Your task to perform on an android device: read, delete, or share a saved page in the chrome app Image 0: 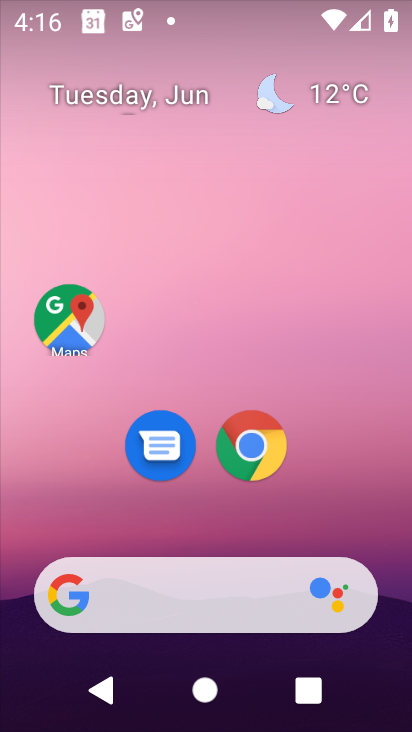
Step 0: drag from (379, 504) to (190, 0)
Your task to perform on an android device: read, delete, or share a saved page in the chrome app Image 1: 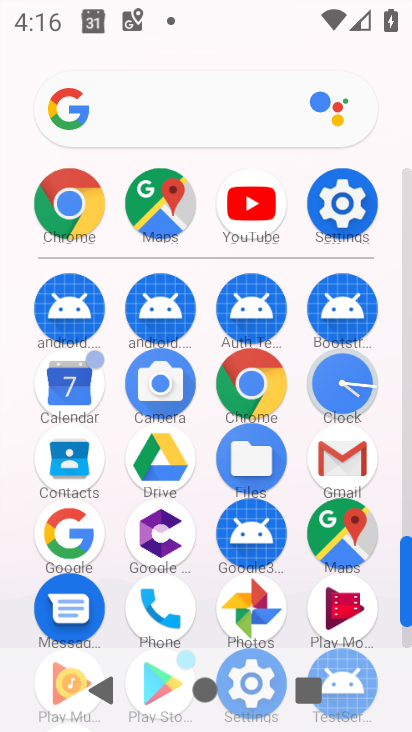
Step 1: click (58, 212)
Your task to perform on an android device: read, delete, or share a saved page in the chrome app Image 2: 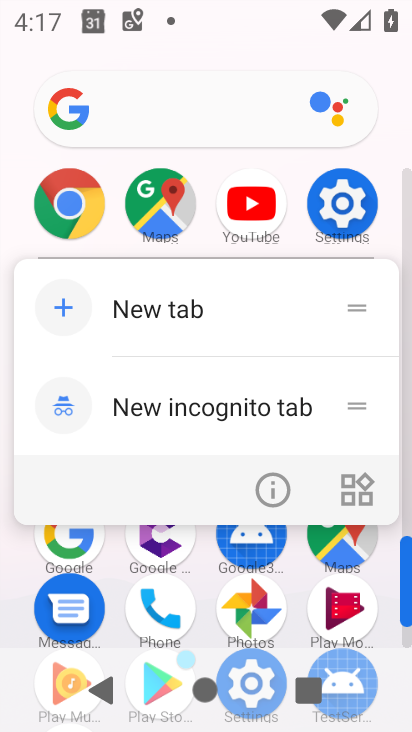
Step 2: click (58, 211)
Your task to perform on an android device: read, delete, or share a saved page in the chrome app Image 3: 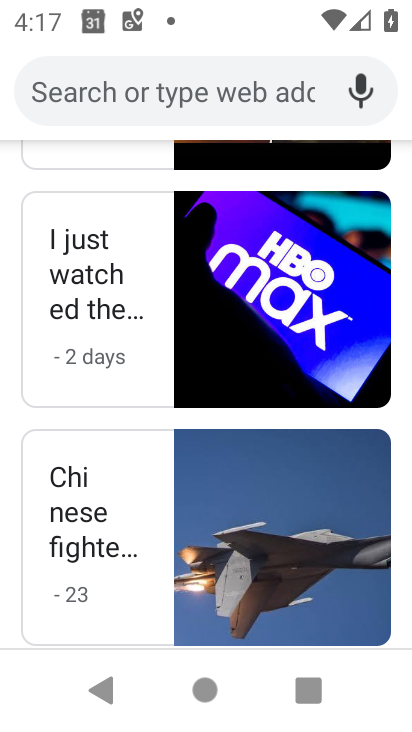
Step 3: task complete